Your task to perform on an android device: What's the weather? Image 0: 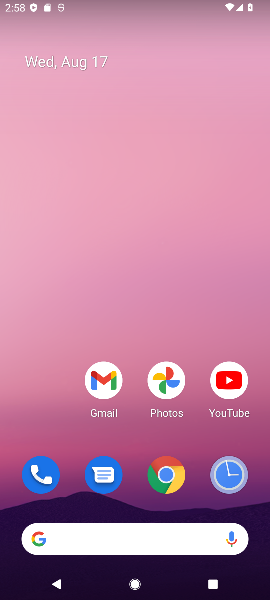
Step 0: click (116, 528)
Your task to perform on an android device: What's the weather? Image 1: 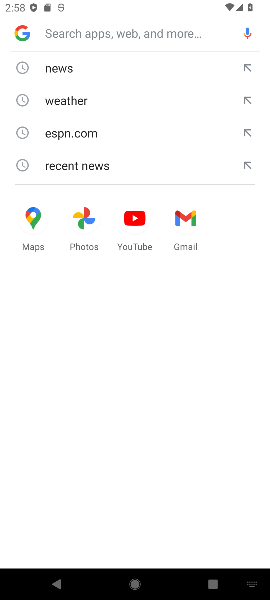
Step 1: click (68, 101)
Your task to perform on an android device: What's the weather? Image 2: 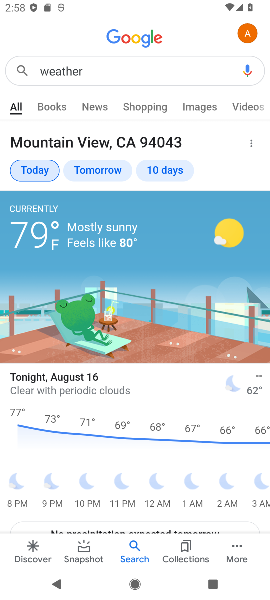
Step 2: task complete